Your task to perform on an android device: Go to Maps Image 0: 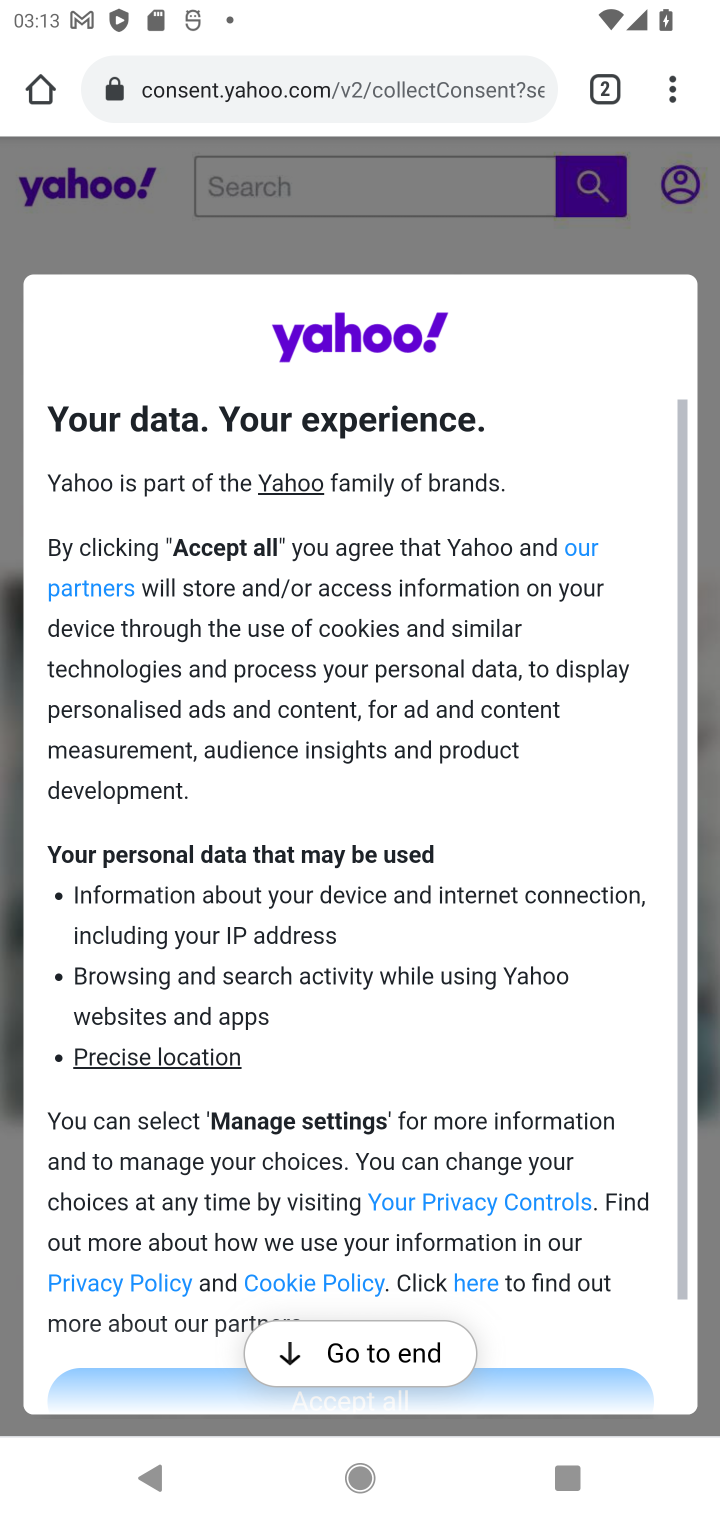
Step 0: press home button
Your task to perform on an android device: Go to Maps Image 1: 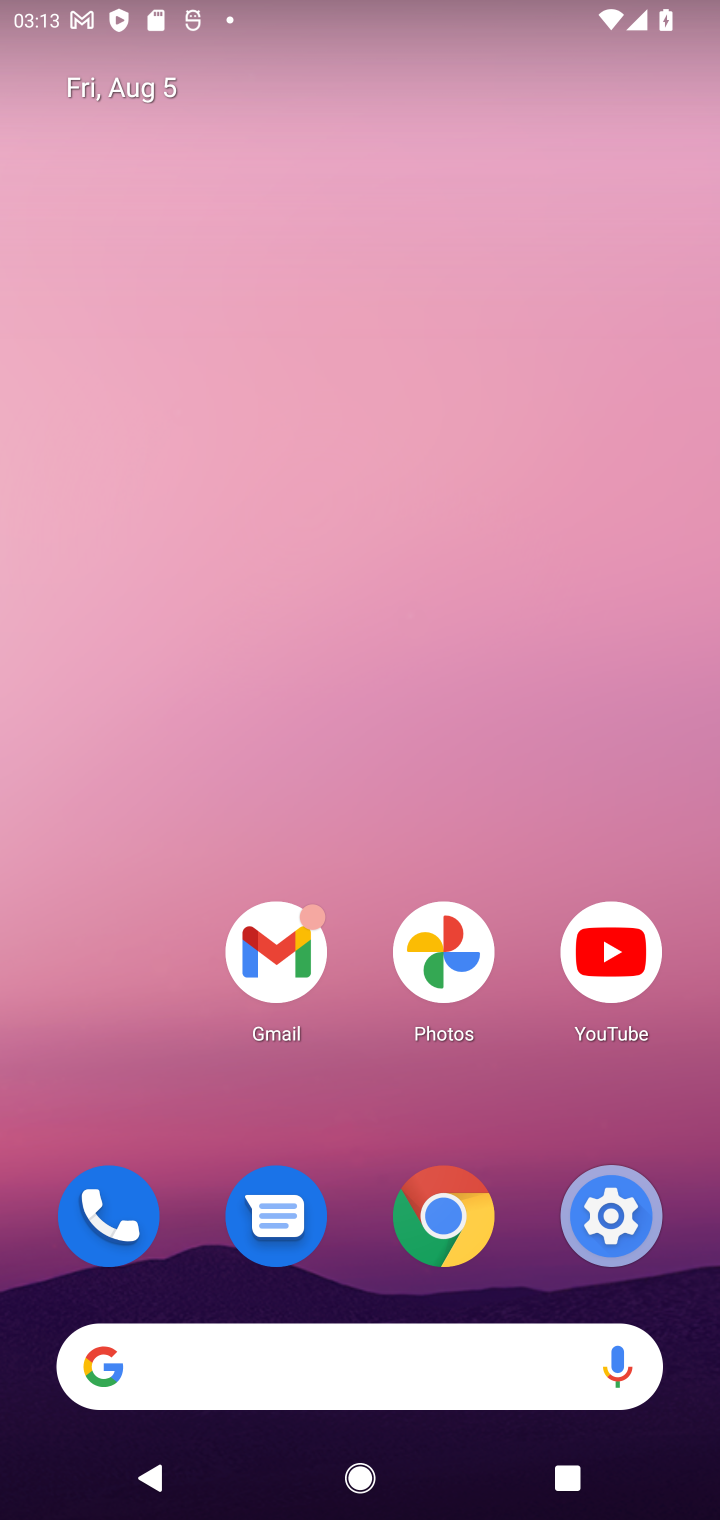
Step 1: drag from (298, 1476) to (613, 50)
Your task to perform on an android device: Go to Maps Image 2: 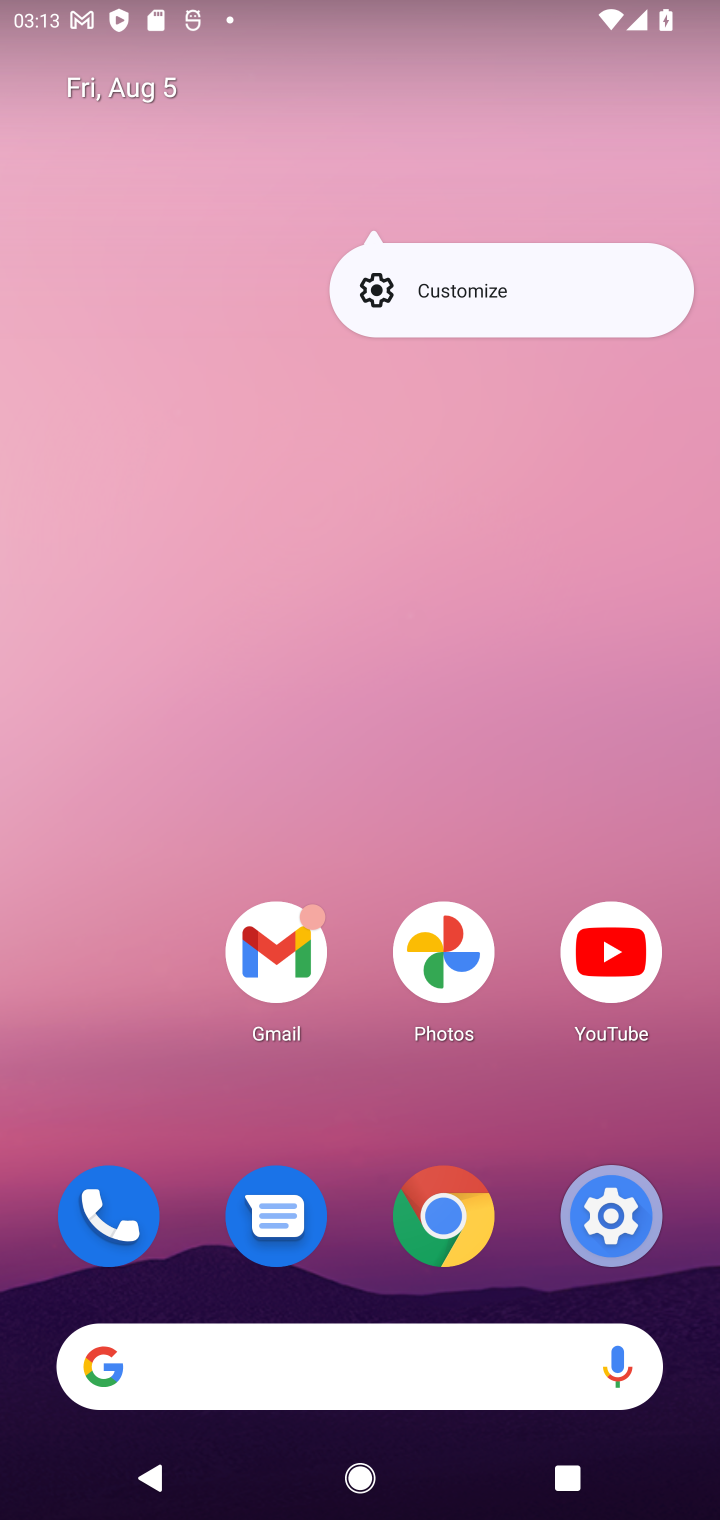
Step 2: drag from (480, 1491) to (486, 345)
Your task to perform on an android device: Go to Maps Image 3: 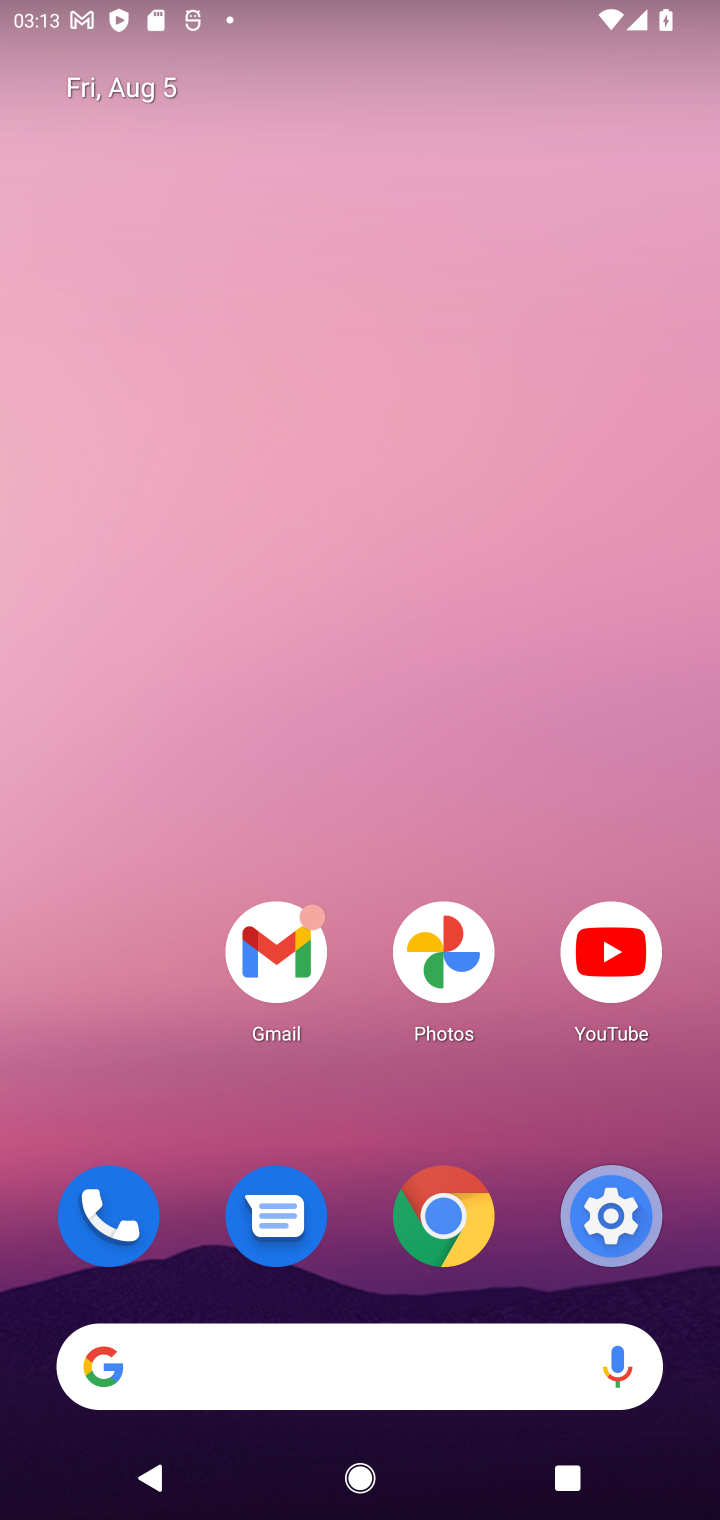
Step 3: drag from (354, 1420) to (660, 14)
Your task to perform on an android device: Go to Maps Image 4: 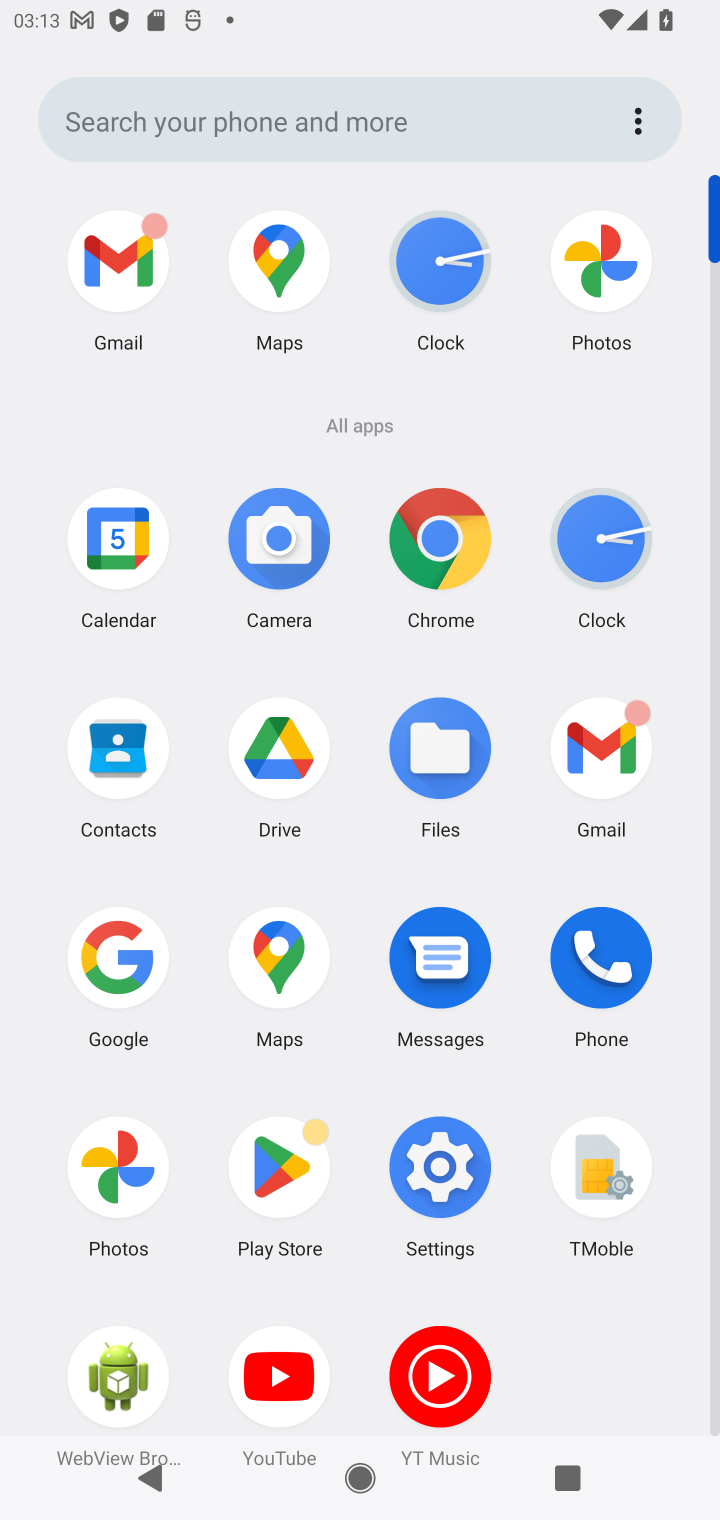
Step 4: click (259, 971)
Your task to perform on an android device: Go to Maps Image 5: 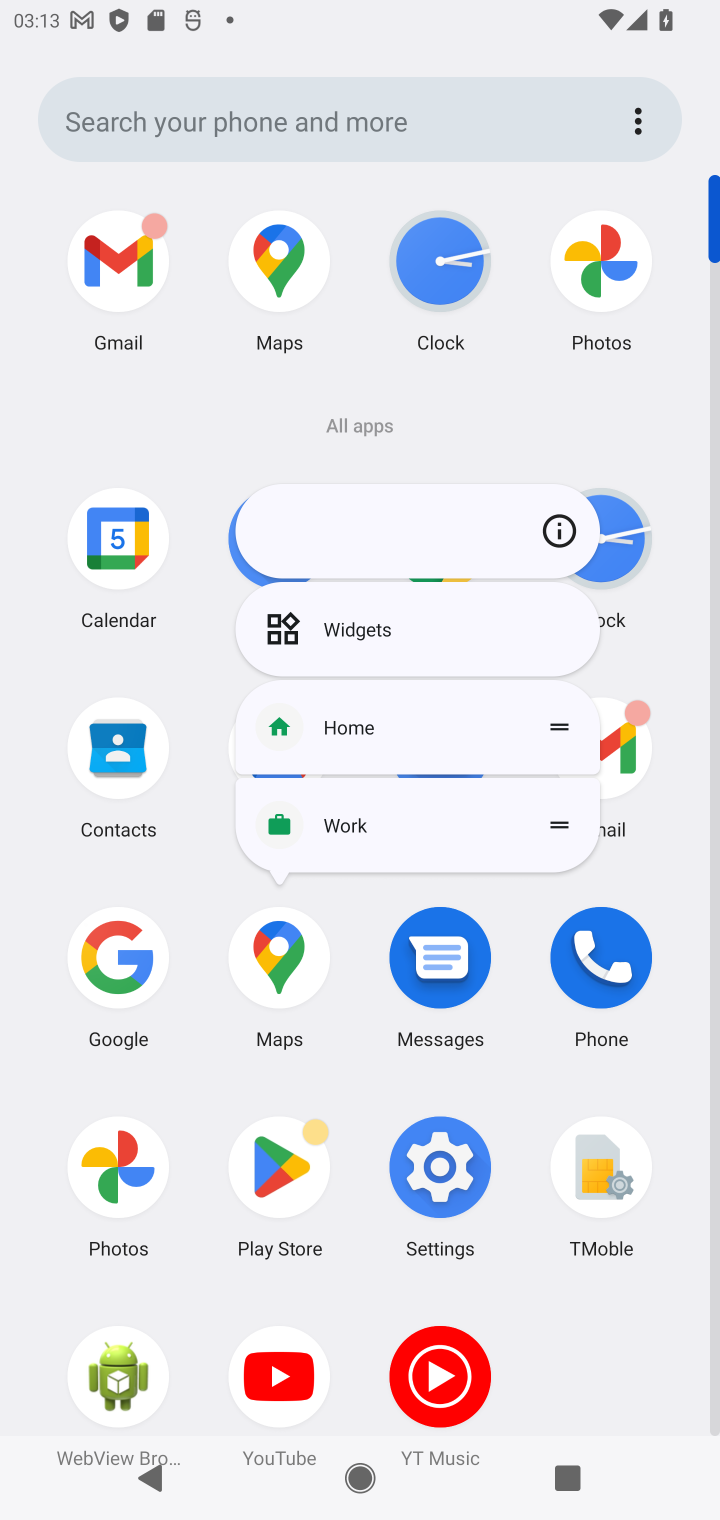
Step 5: click (259, 971)
Your task to perform on an android device: Go to Maps Image 6: 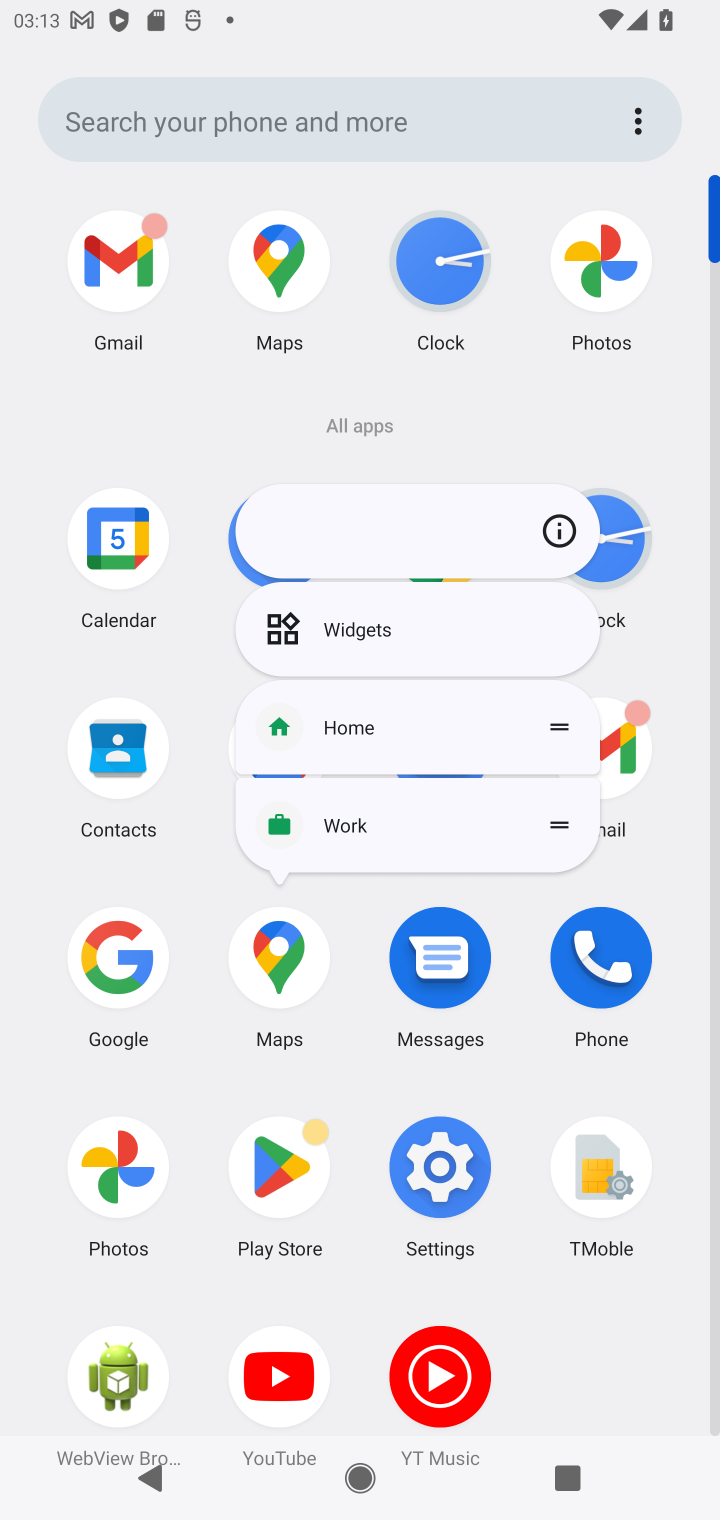
Step 6: click (310, 979)
Your task to perform on an android device: Go to Maps Image 7: 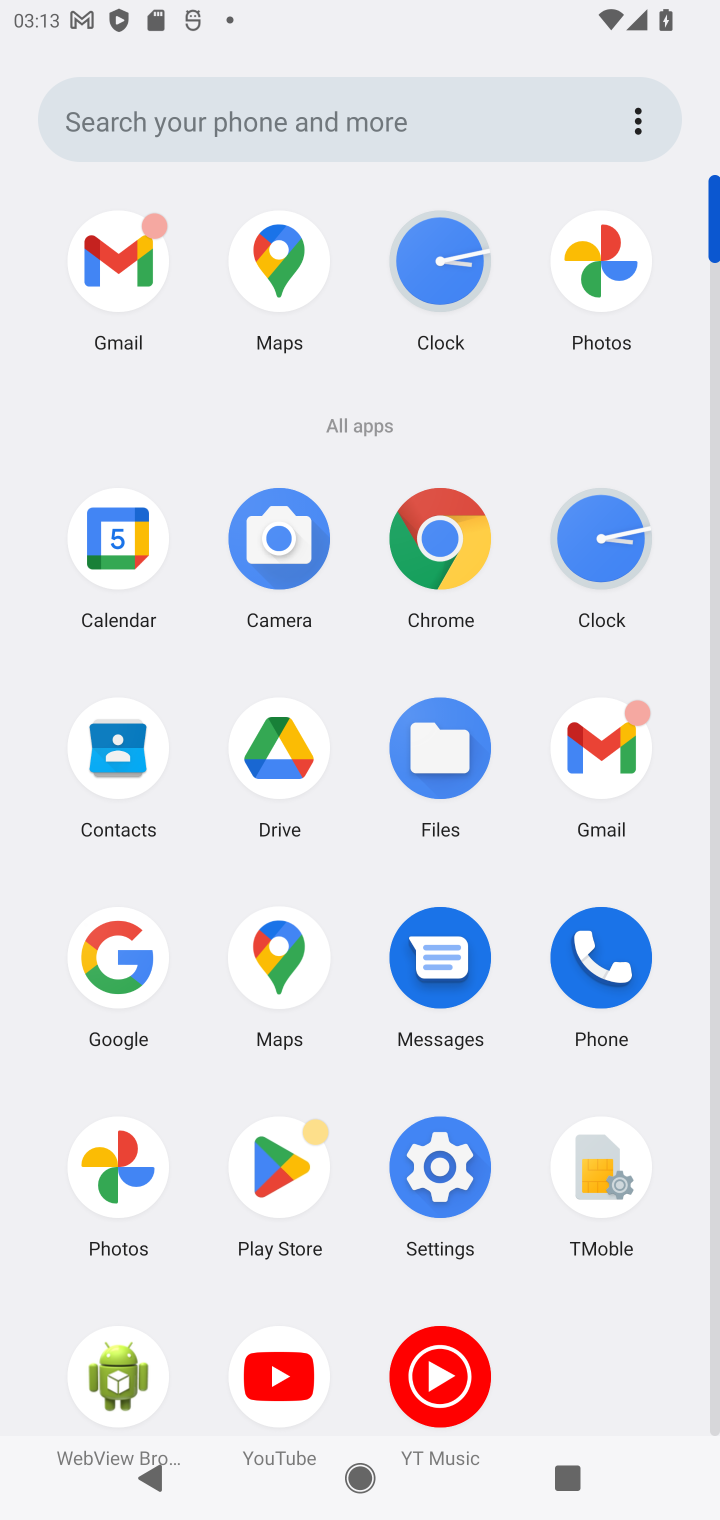
Step 7: click (272, 906)
Your task to perform on an android device: Go to Maps Image 8: 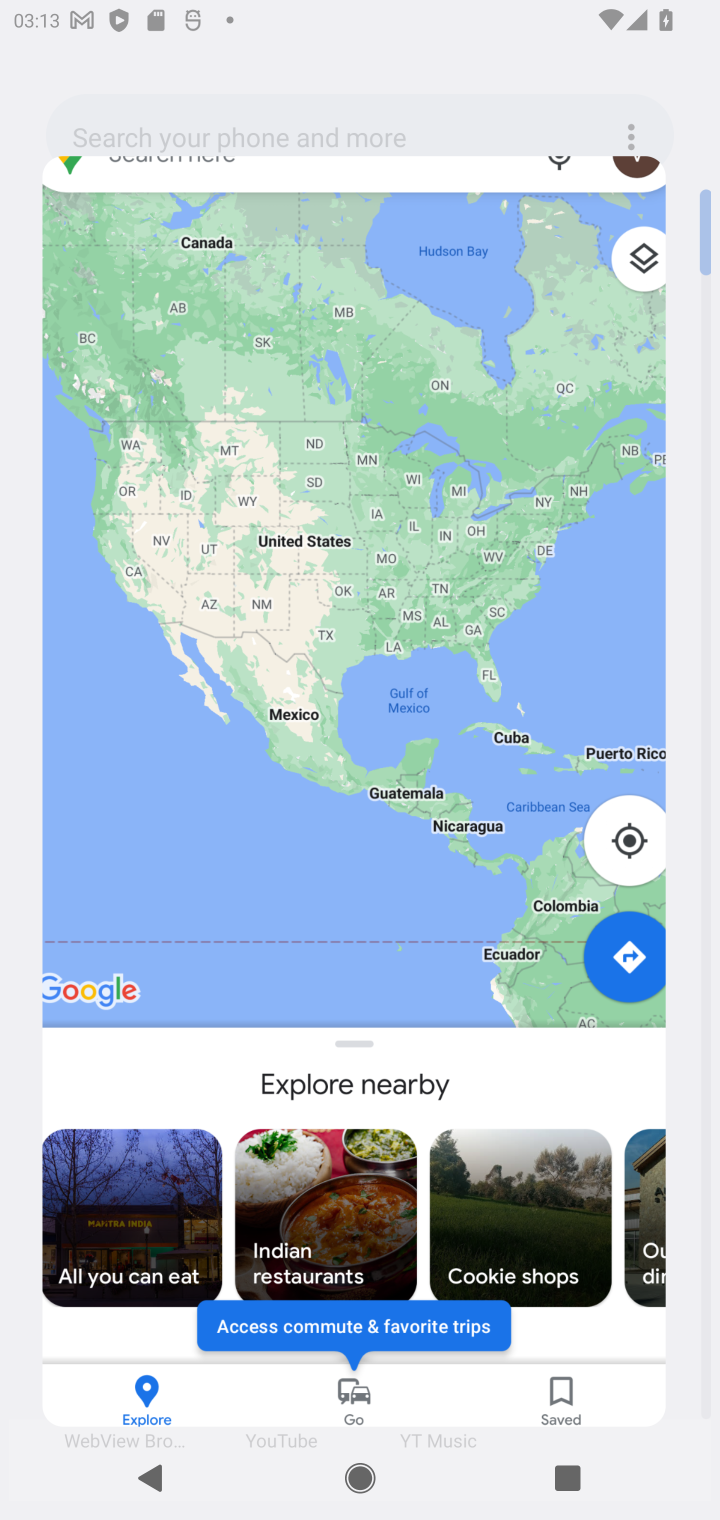
Step 8: drag from (264, 942) to (311, 994)
Your task to perform on an android device: Go to Maps Image 9: 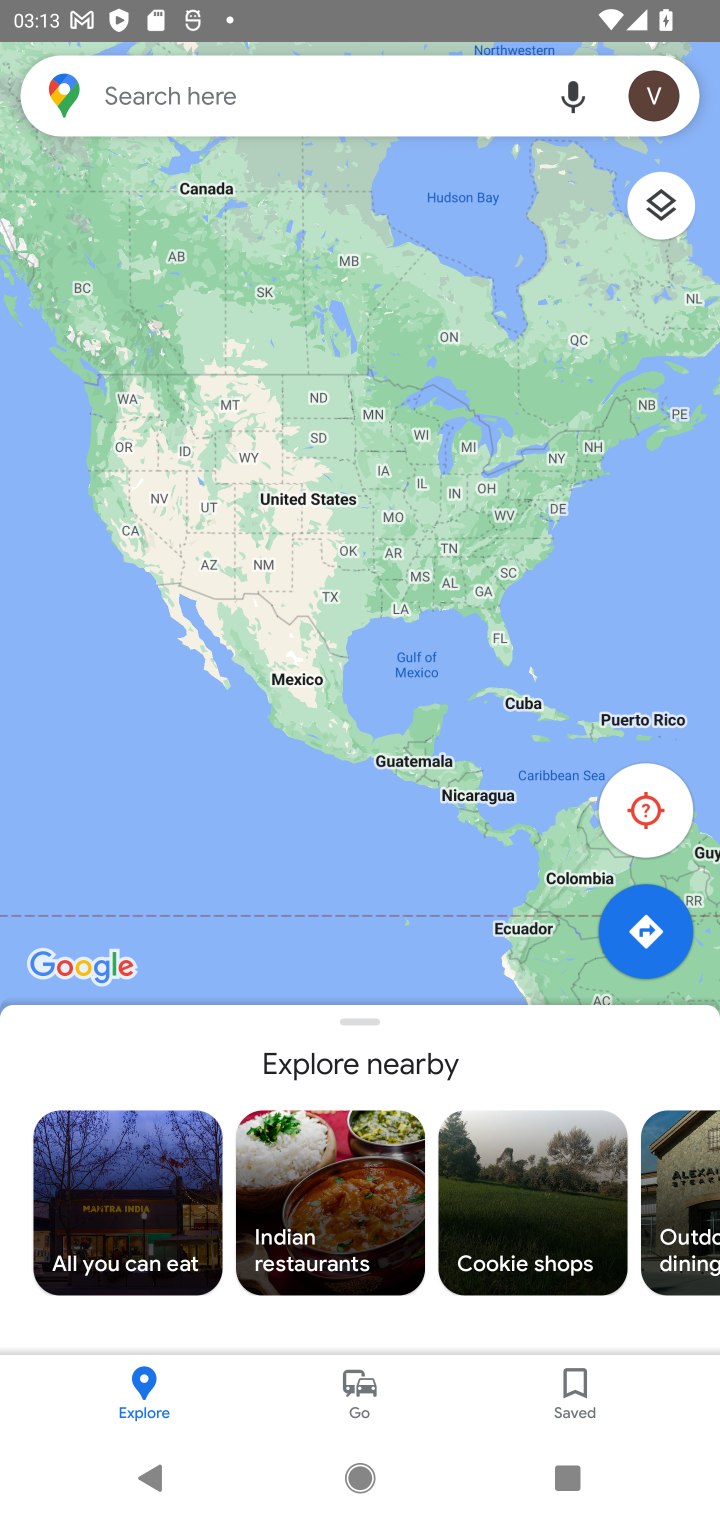
Step 9: click (451, 625)
Your task to perform on an android device: Go to Maps Image 10: 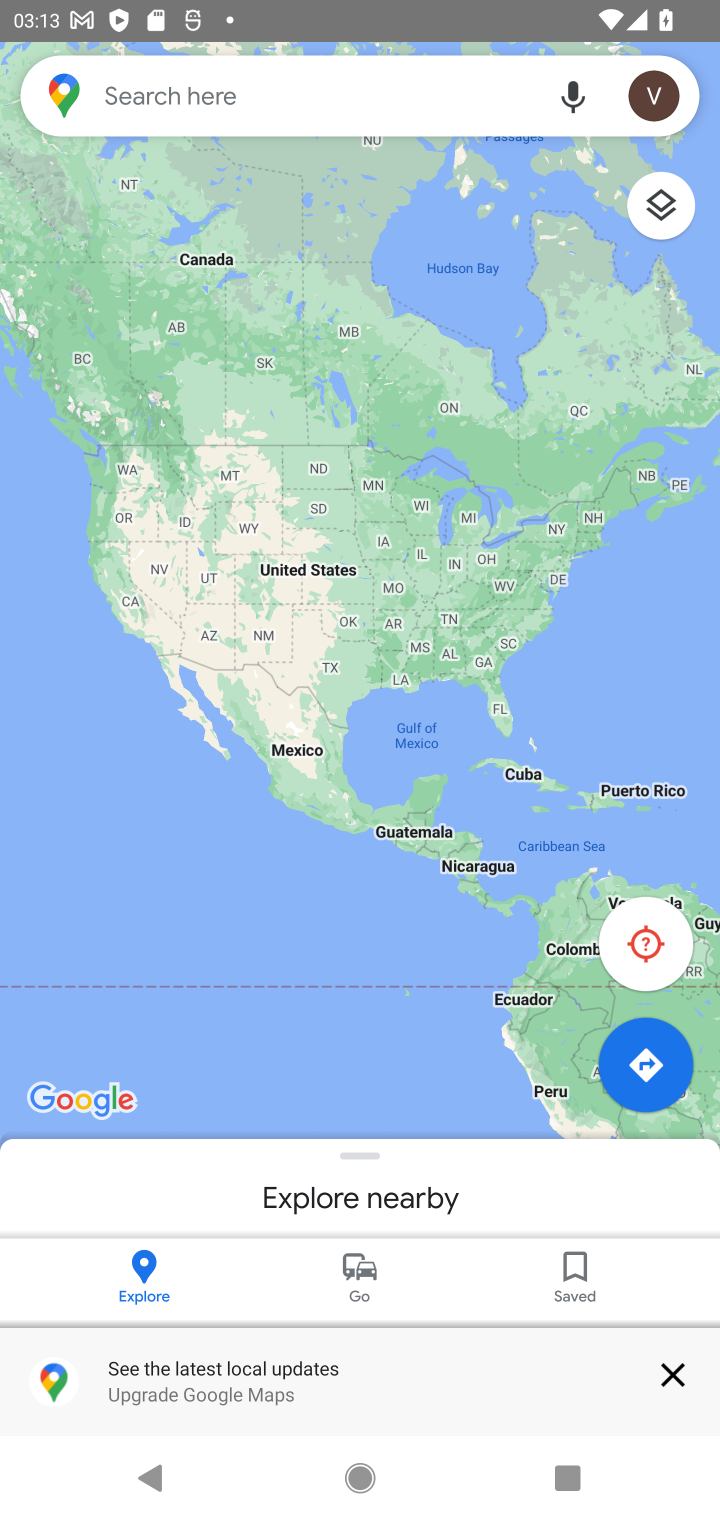
Step 10: task complete